Your task to perform on an android device: What's on my calendar today? Image 0: 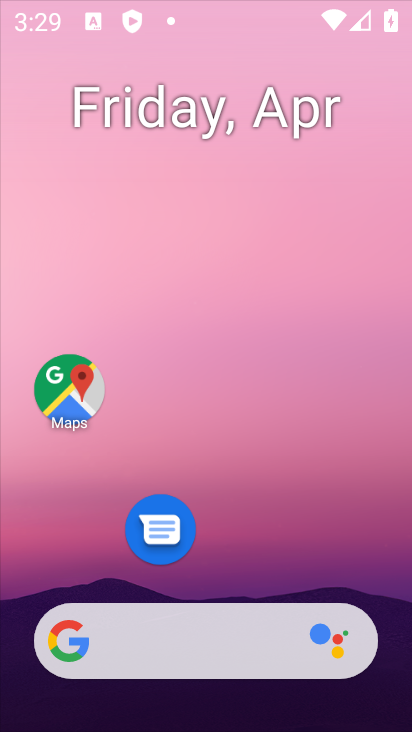
Step 0: drag from (257, 609) to (349, 62)
Your task to perform on an android device: What's on my calendar today? Image 1: 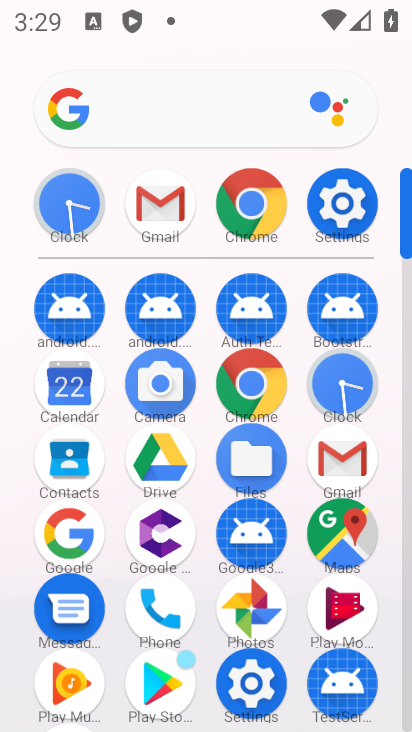
Step 1: drag from (145, 517) to (260, 133)
Your task to perform on an android device: What's on my calendar today? Image 2: 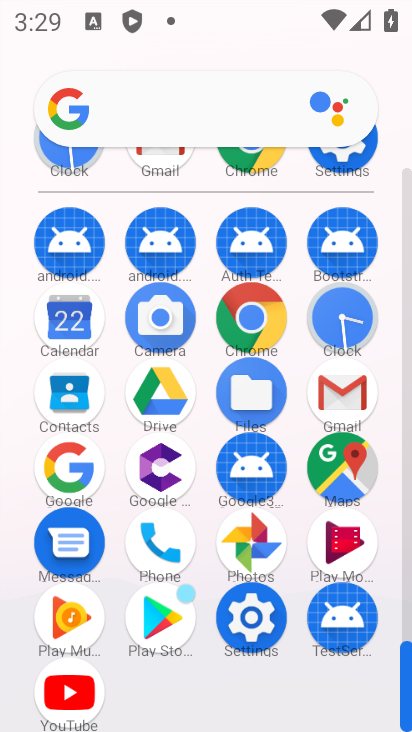
Step 2: click (259, 558)
Your task to perform on an android device: What's on my calendar today? Image 3: 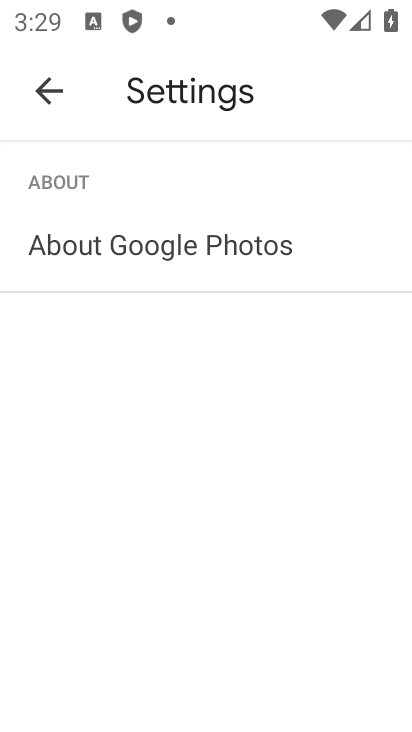
Step 3: click (55, 95)
Your task to perform on an android device: What's on my calendar today? Image 4: 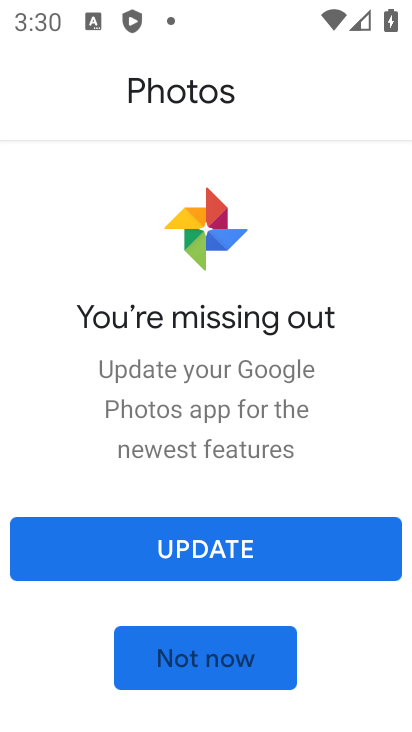
Step 4: press home button
Your task to perform on an android device: What's on my calendar today? Image 5: 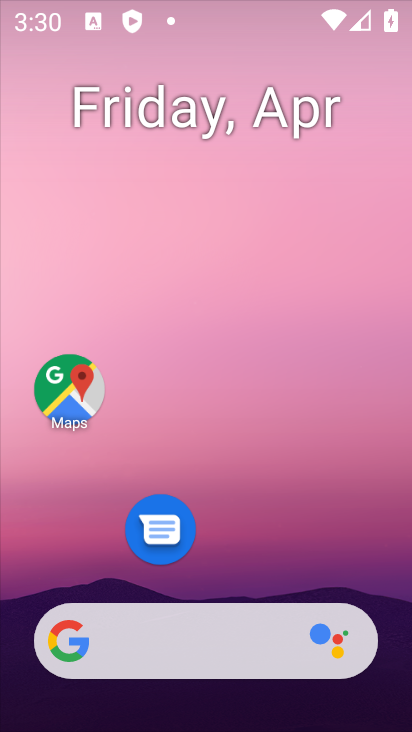
Step 5: drag from (277, 560) to (286, 132)
Your task to perform on an android device: What's on my calendar today? Image 6: 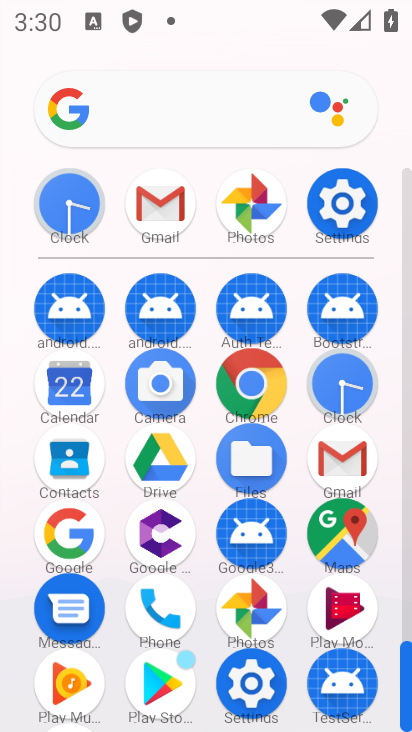
Step 6: click (78, 407)
Your task to perform on an android device: What's on my calendar today? Image 7: 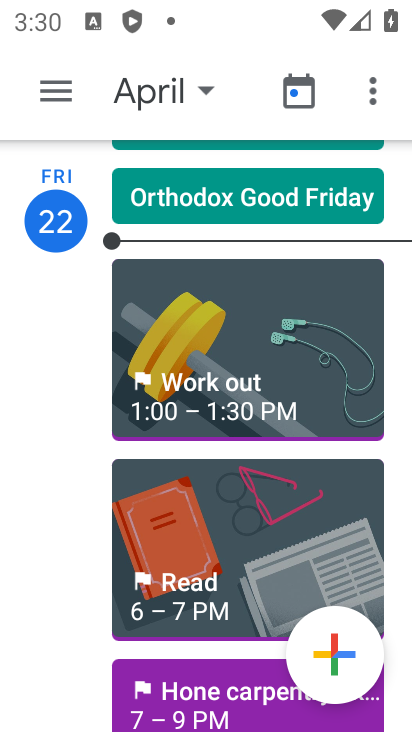
Step 7: click (177, 103)
Your task to perform on an android device: What's on my calendar today? Image 8: 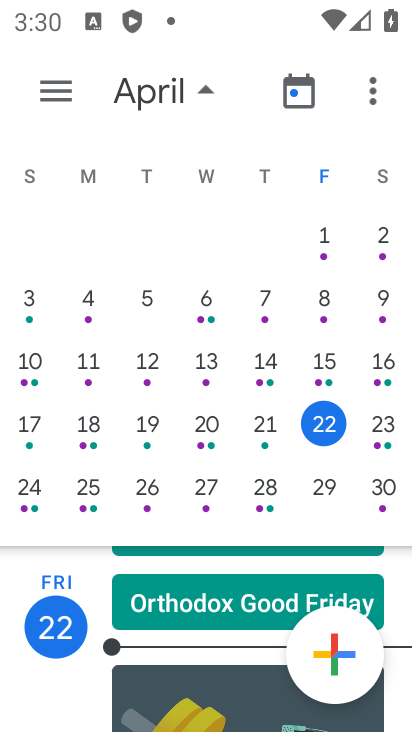
Step 8: task complete